Your task to perform on an android device: What's the price of the Hisense TV? Image 0: 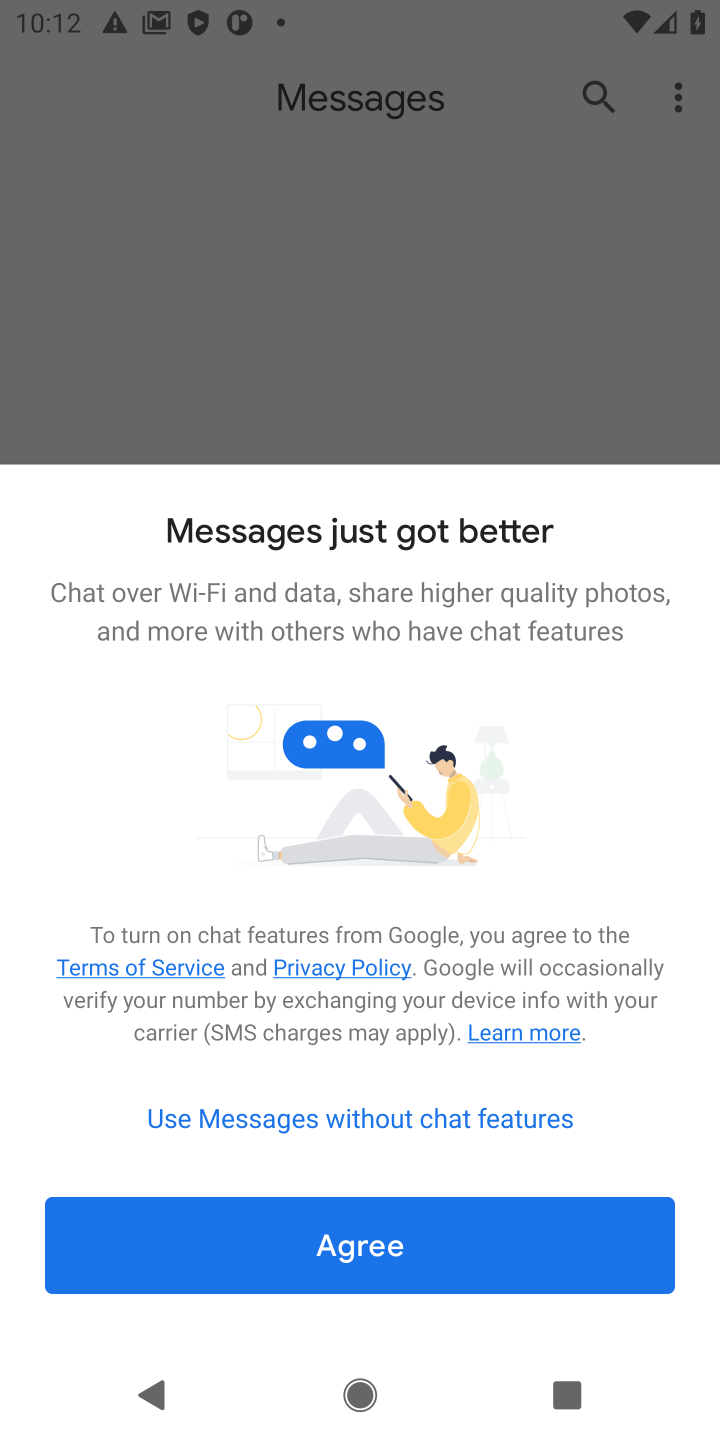
Step 0: press home button
Your task to perform on an android device: What's the price of the Hisense TV? Image 1: 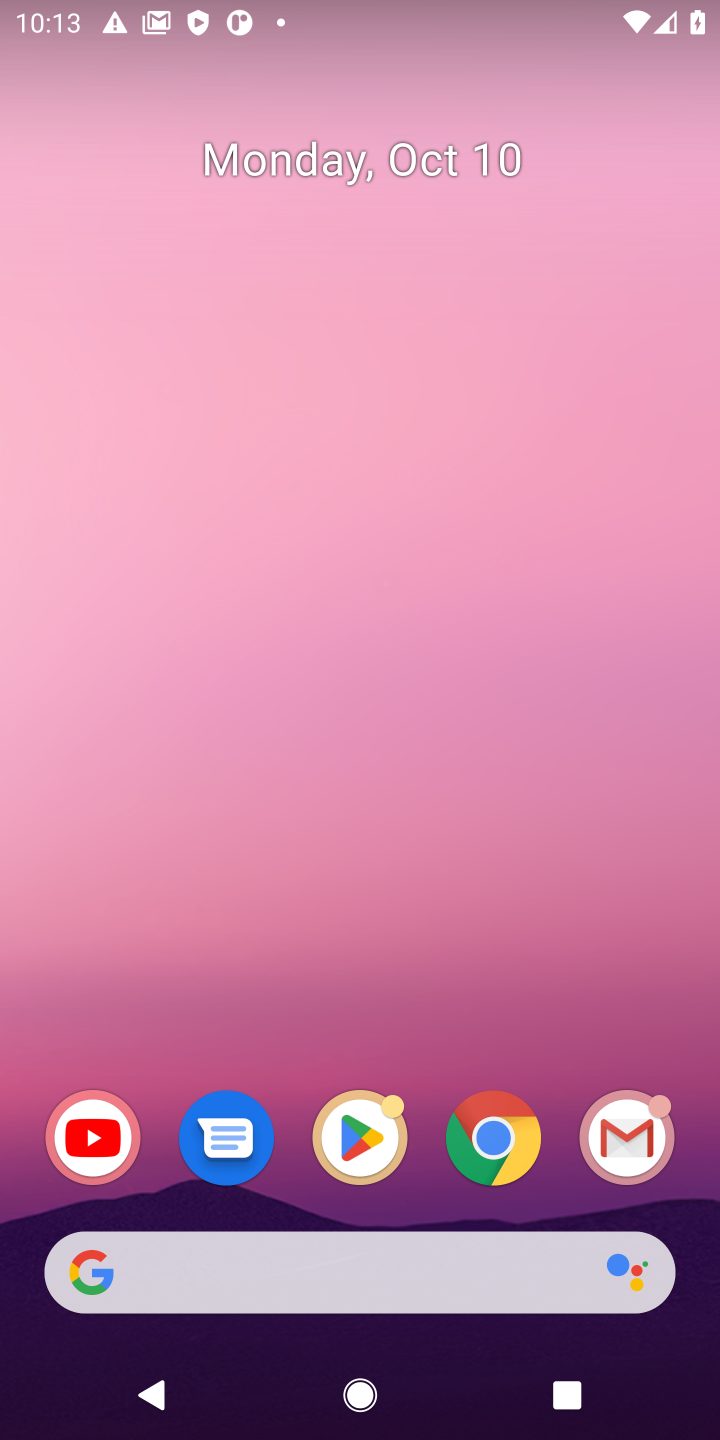
Step 1: click (249, 1260)
Your task to perform on an android device: What's the price of the Hisense TV? Image 2: 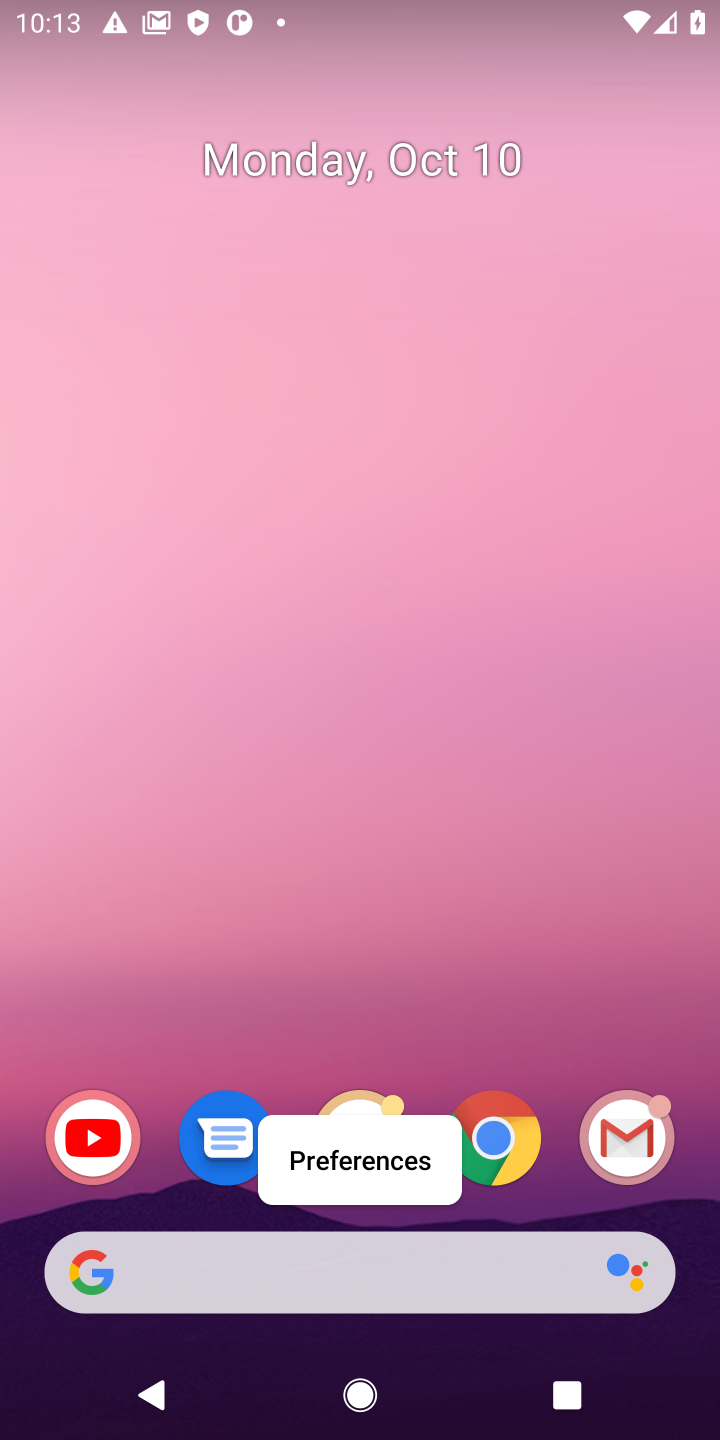
Step 2: click (156, 1267)
Your task to perform on an android device: What's the price of the Hisense TV? Image 3: 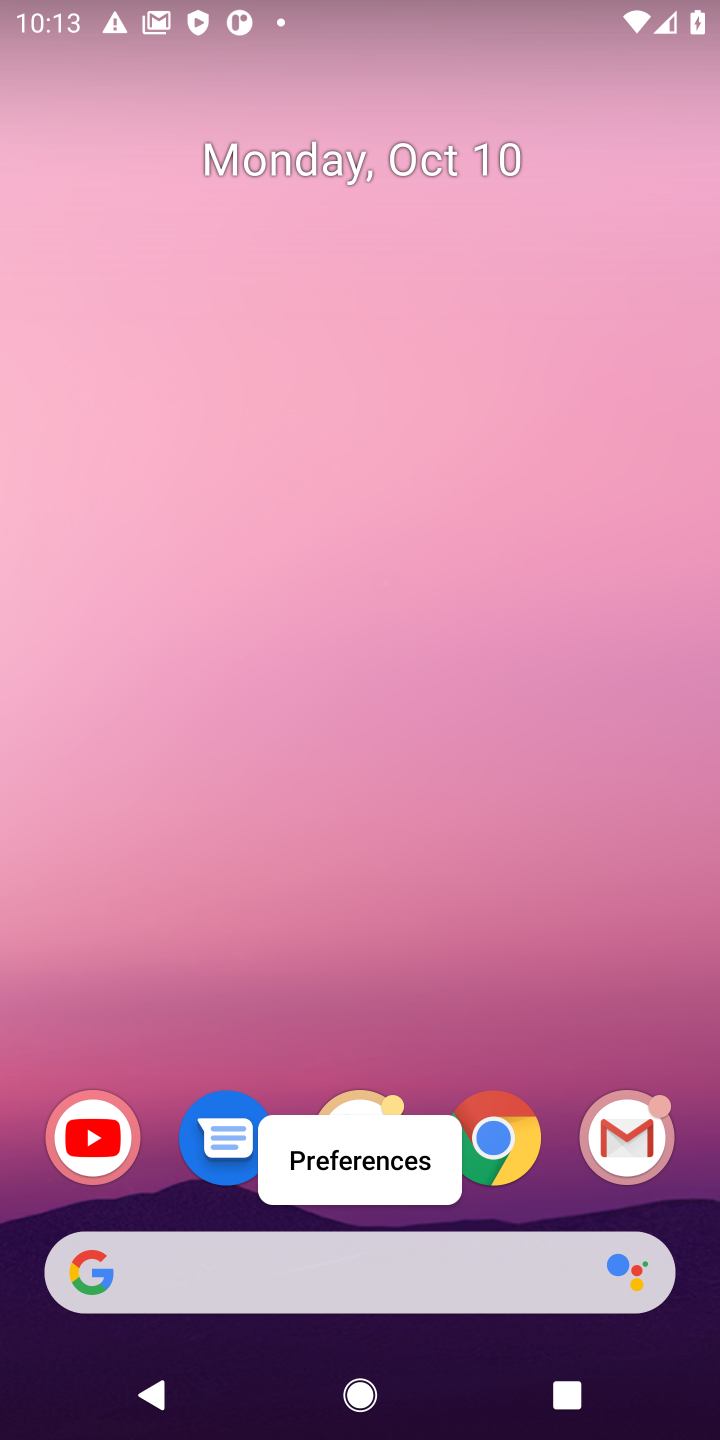
Step 3: click (86, 1266)
Your task to perform on an android device: What's the price of the Hisense TV? Image 4: 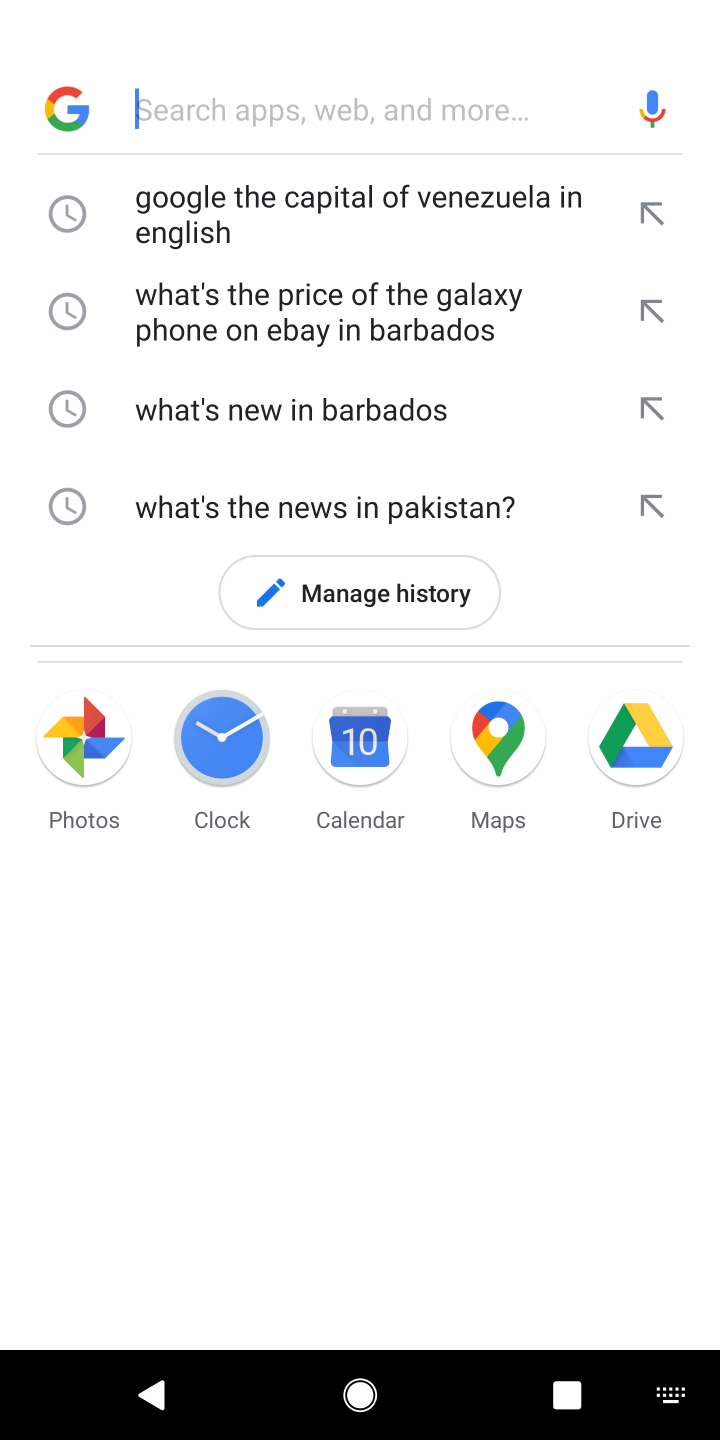
Step 4: type "What's the price of the Hisense TV?"
Your task to perform on an android device: What's the price of the Hisense TV? Image 5: 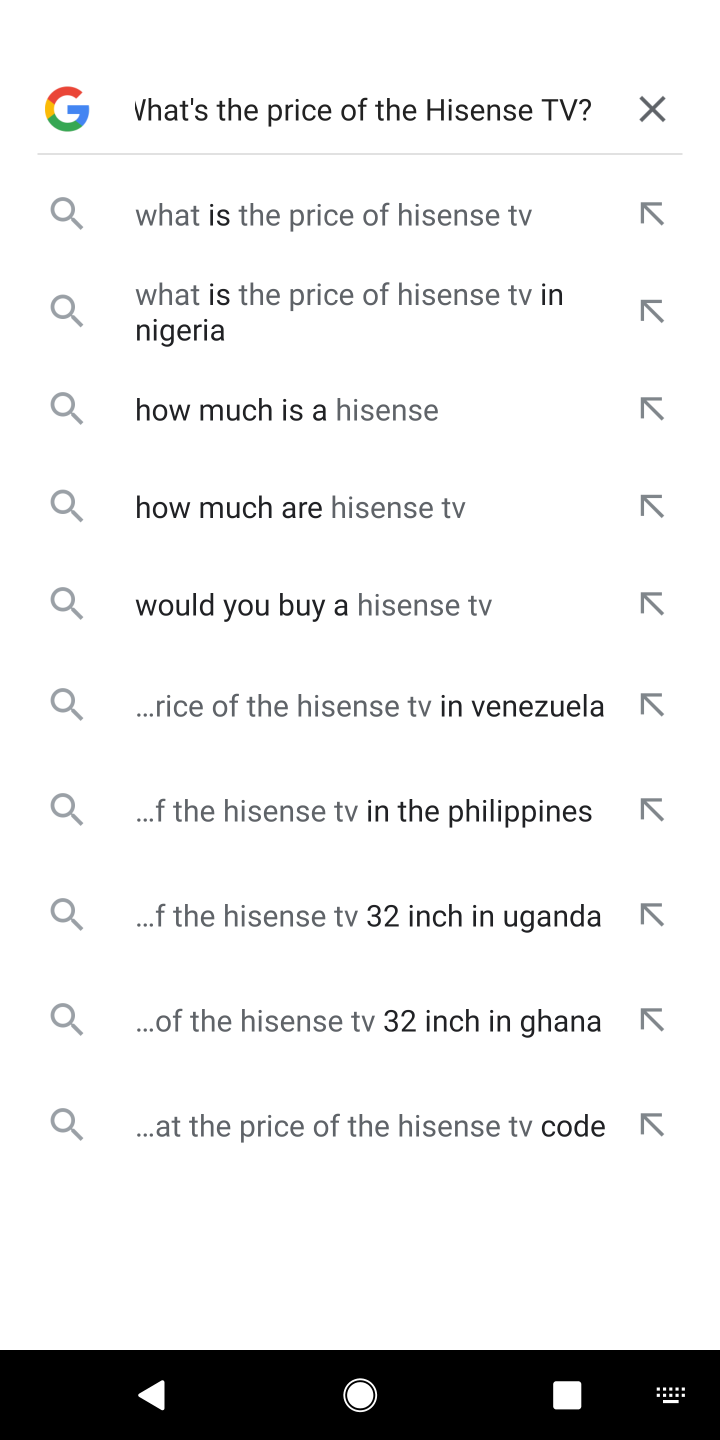
Step 5: click (490, 225)
Your task to perform on an android device: What's the price of the Hisense TV? Image 6: 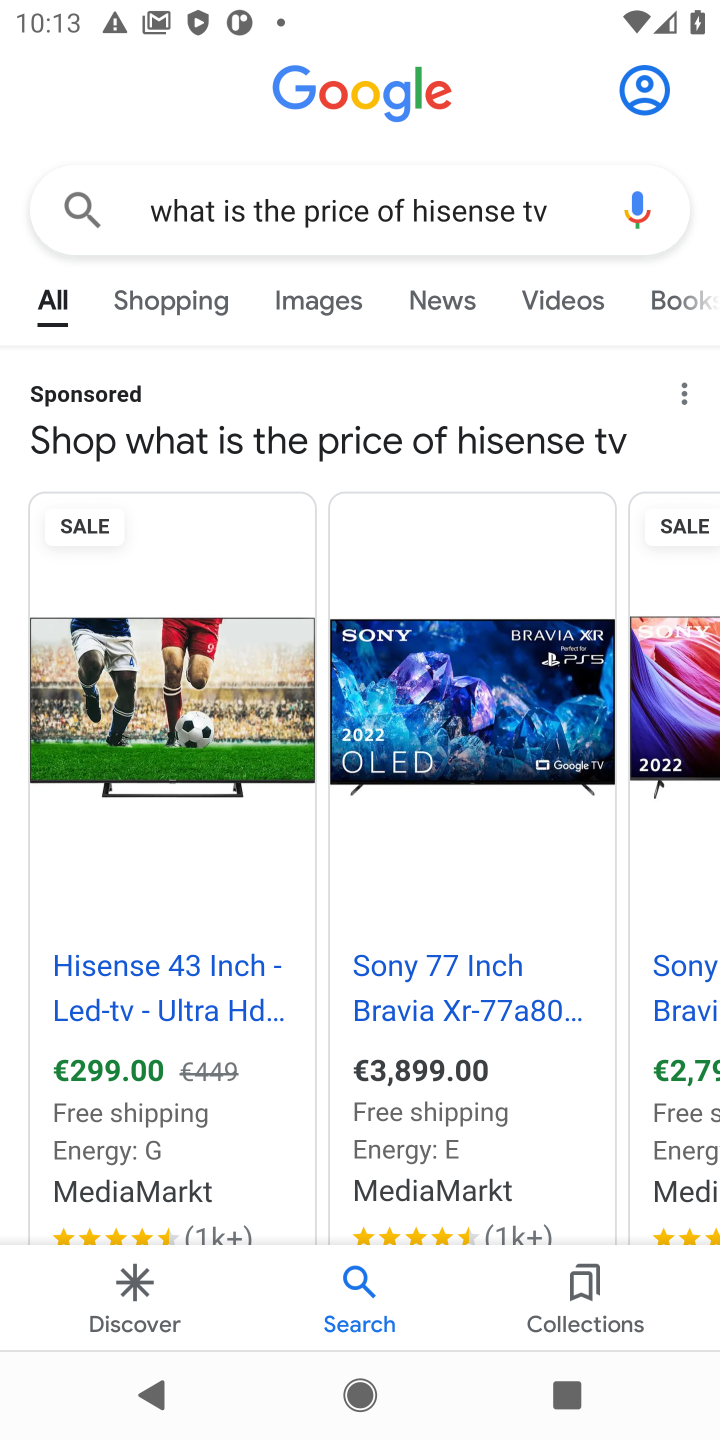
Step 6: task complete